Your task to perform on an android device: Go to ESPN.com Image 0: 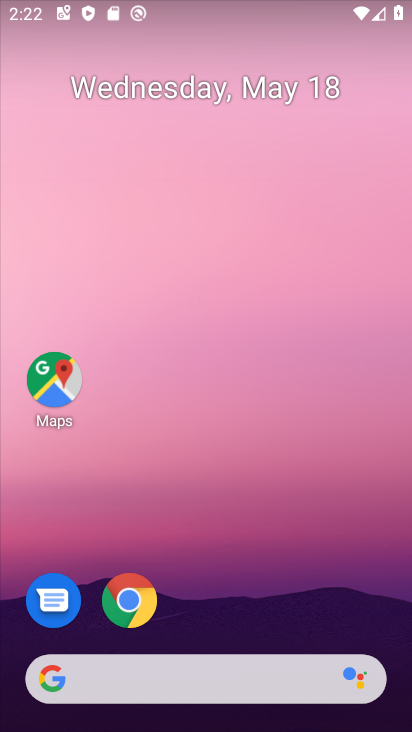
Step 0: click (117, 604)
Your task to perform on an android device: Go to ESPN.com Image 1: 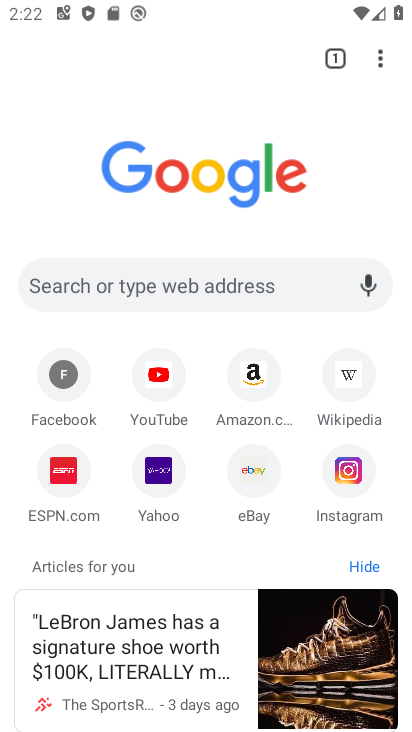
Step 1: click (61, 476)
Your task to perform on an android device: Go to ESPN.com Image 2: 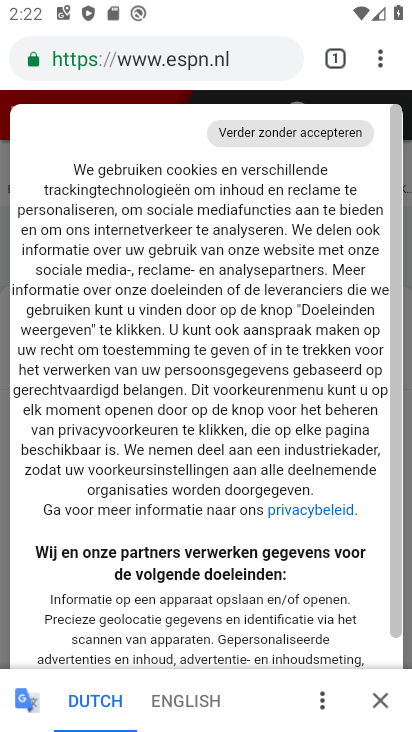
Step 2: task complete